Your task to perform on an android device: change keyboard looks Image 0: 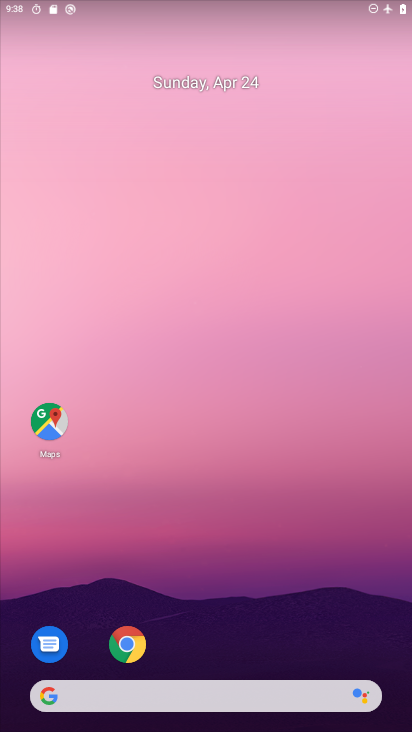
Step 0: drag from (211, 678) to (136, 4)
Your task to perform on an android device: change keyboard looks Image 1: 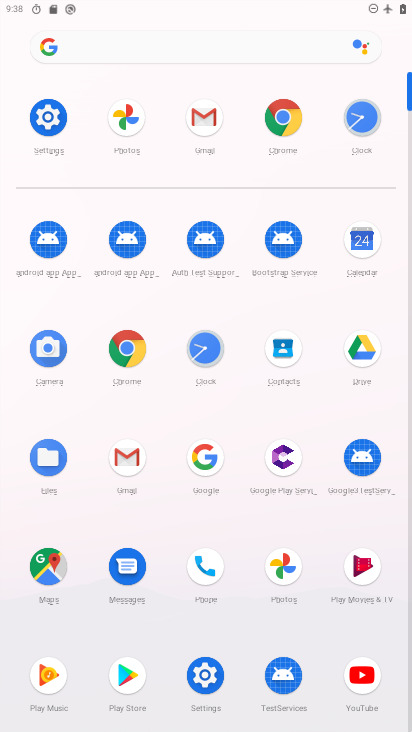
Step 1: click (43, 105)
Your task to perform on an android device: change keyboard looks Image 2: 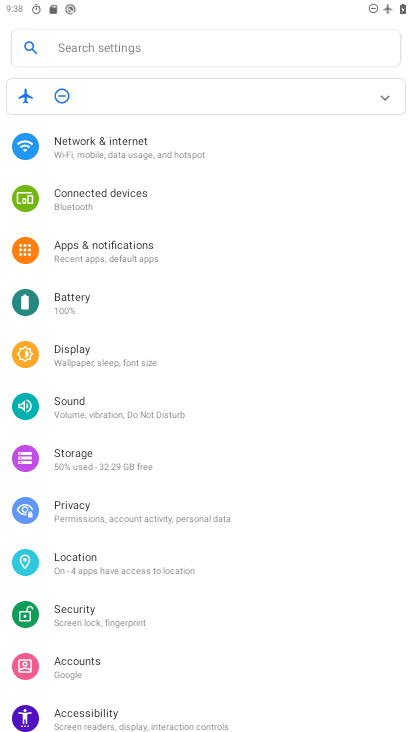
Step 2: drag from (229, 623) to (154, 266)
Your task to perform on an android device: change keyboard looks Image 3: 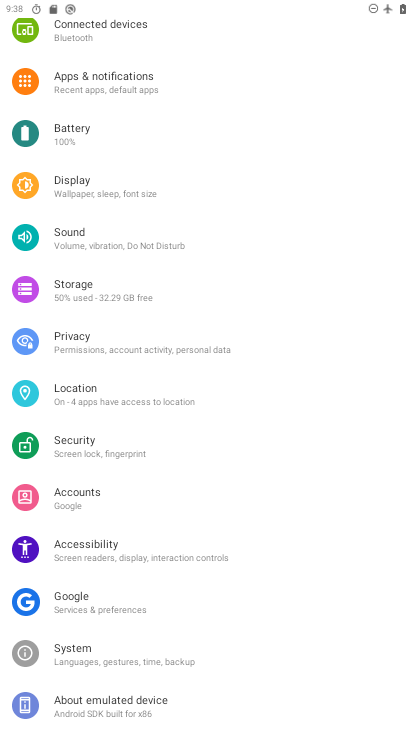
Step 3: click (121, 658)
Your task to perform on an android device: change keyboard looks Image 4: 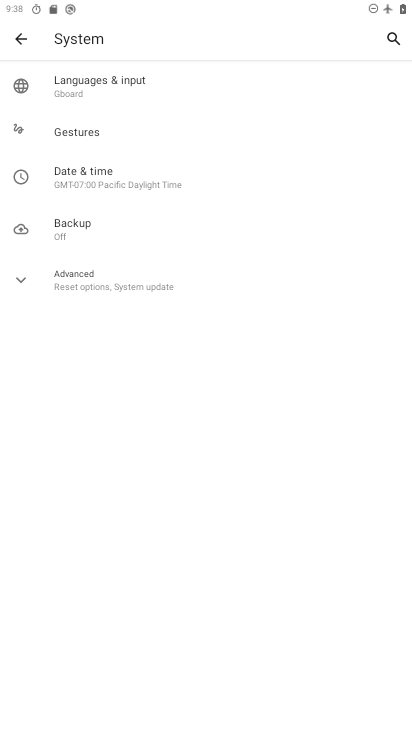
Step 4: click (61, 77)
Your task to perform on an android device: change keyboard looks Image 5: 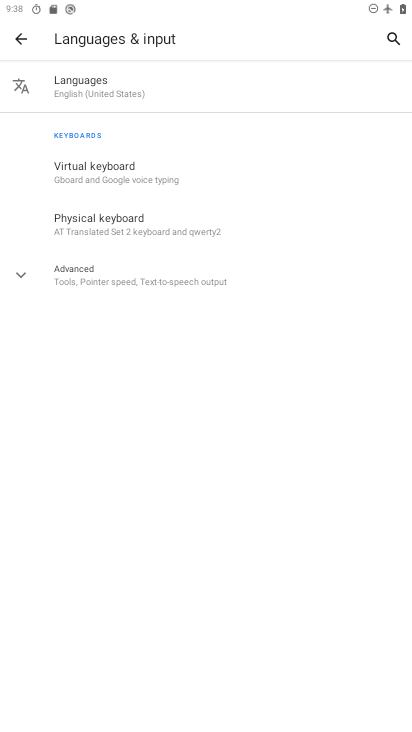
Step 5: click (94, 177)
Your task to perform on an android device: change keyboard looks Image 6: 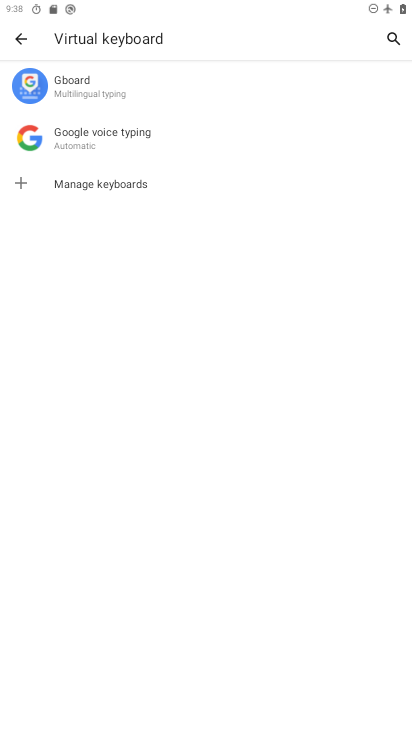
Step 6: click (92, 88)
Your task to perform on an android device: change keyboard looks Image 7: 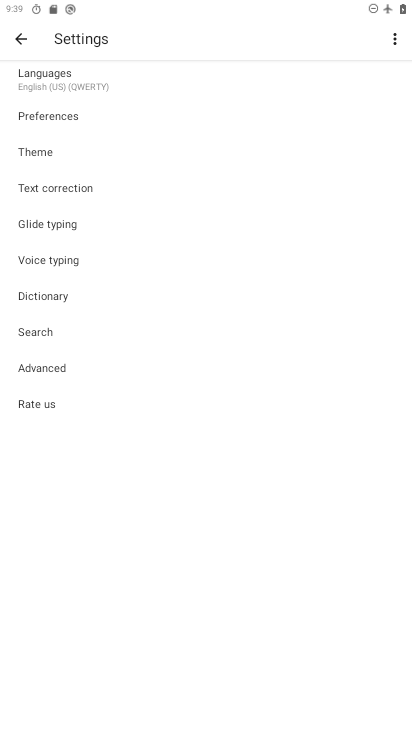
Step 7: click (60, 146)
Your task to perform on an android device: change keyboard looks Image 8: 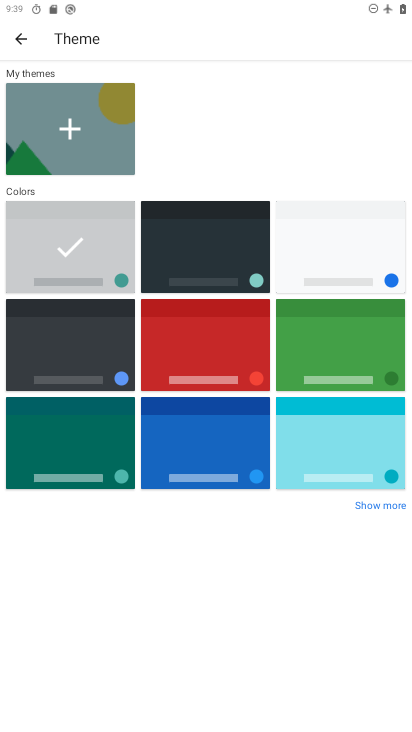
Step 8: click (191, 241)
Your task to perform on an android device: change keyboard looks Image 9: 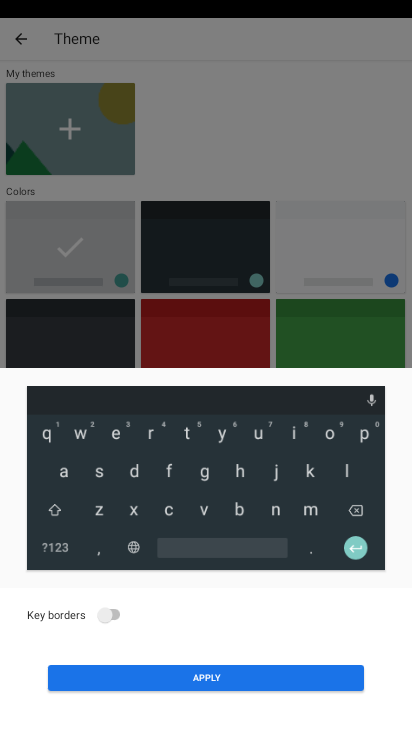
Step 9: click (260, 671)
Your task to perform on an android device: change keyboard looks Image 10: 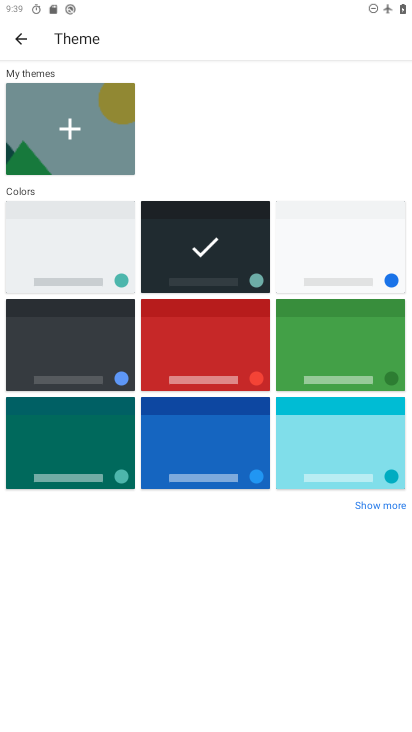
Step 10: task complete